Your task to perform on an android device: turn off sleep mode Image 0: 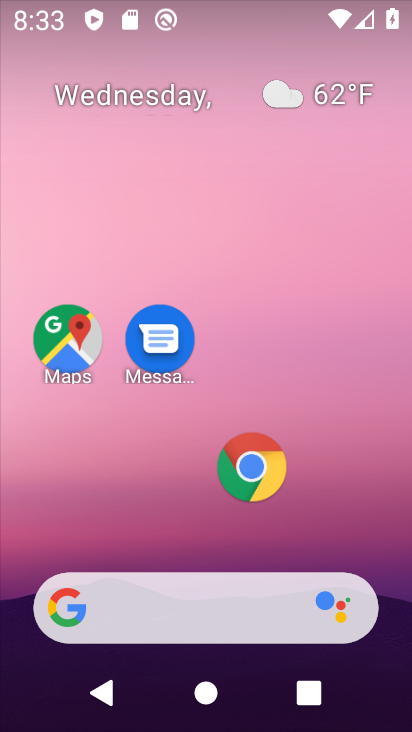
Step 0: drag from (184, 464) to (202, 83)
Your task to perform on an android device: turn off sleep mode Image 1: 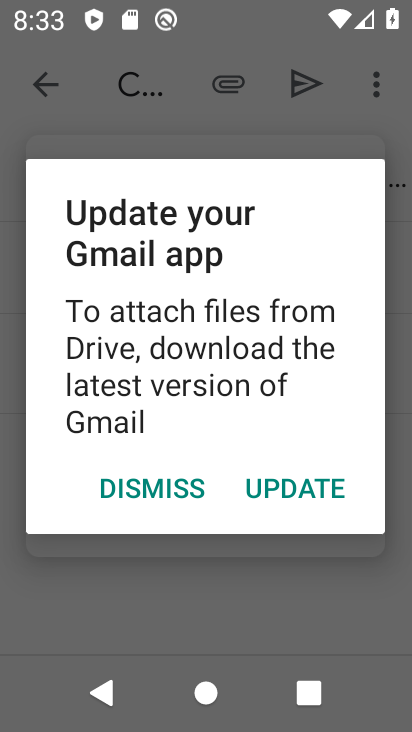
Step 1: press home button
Your task to perform on an android device: turn off sleep mode Image 2: 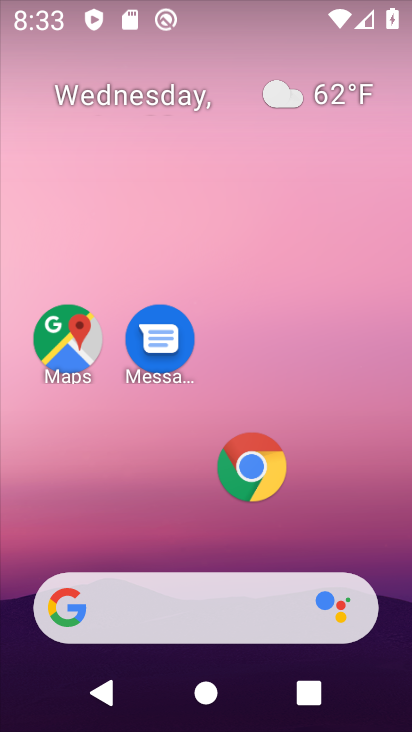
Step 2: drag from (123, 498) to (127, 60)
Your task to perform on an android device: turn off sleep mode Image 3: 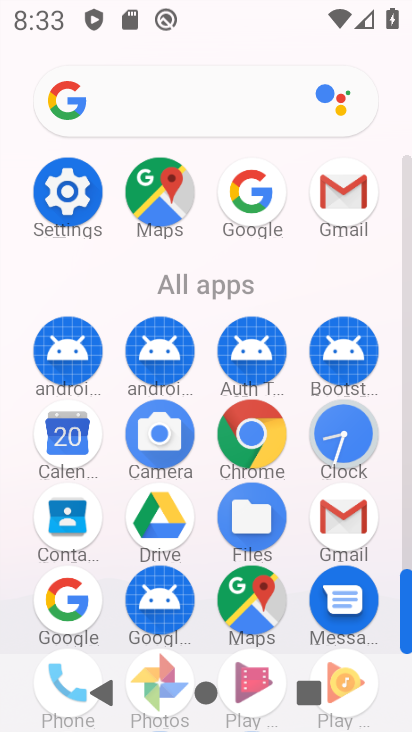
Step 3: click (66, 191)
Your task to perform on an android device: turn off sleep mode Image 4: 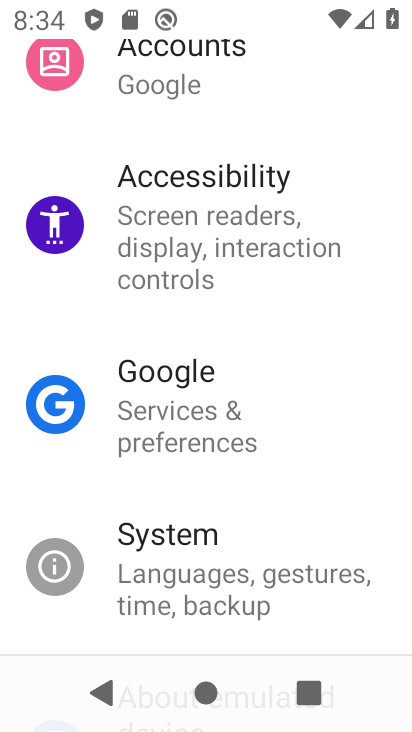
Step 4: drag from (212, 317) to (286, 598)
Your task to perform on an android device: turn off sleep mode Image 5: 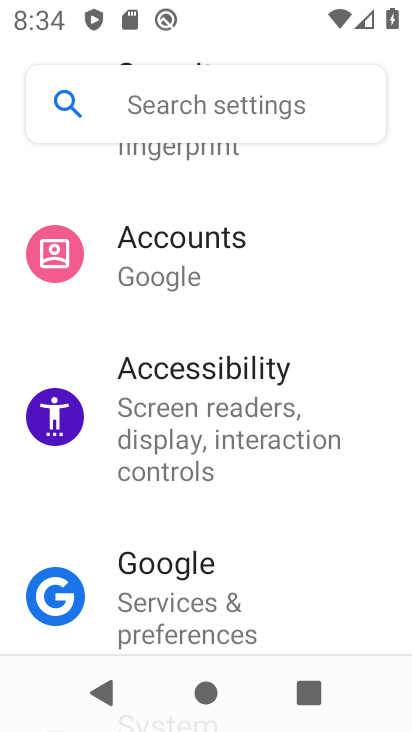
Step 5: drag from (175, 217) to (230, 614)
Your task to perform on an android device: turn off sleep mode Image 6: 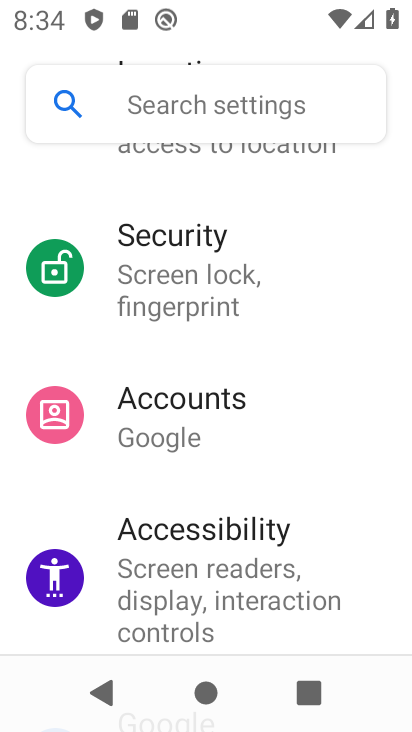
Step 6: drag from (150, 198) to (210, 553)
Your task to perform on an android device: turn off sleep mode Image 7: 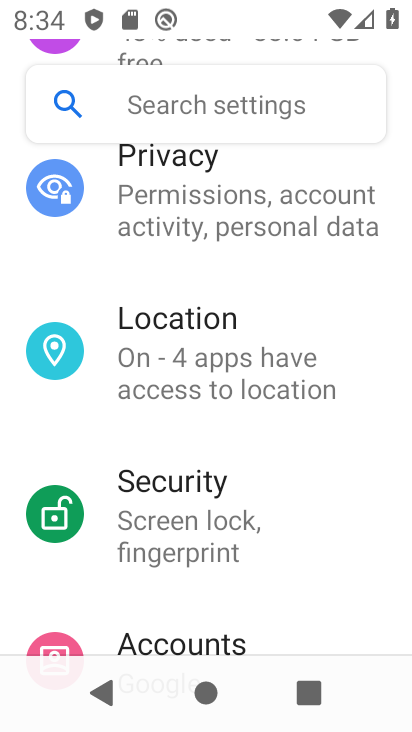
Step 7: drag from (189, 275) to (218, 637)
Your task to perform on an android device: turn off sleep mode Image 8: 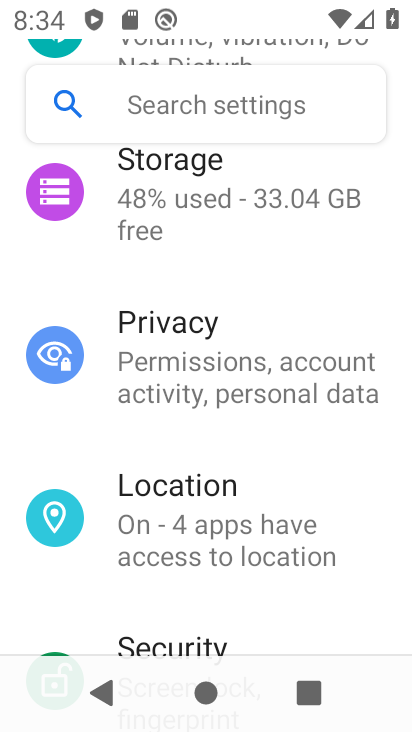
Step 8: drag from (186, 335) to (298, 618)
Your task to perform on an android device: turn off sleep mode Image 9: 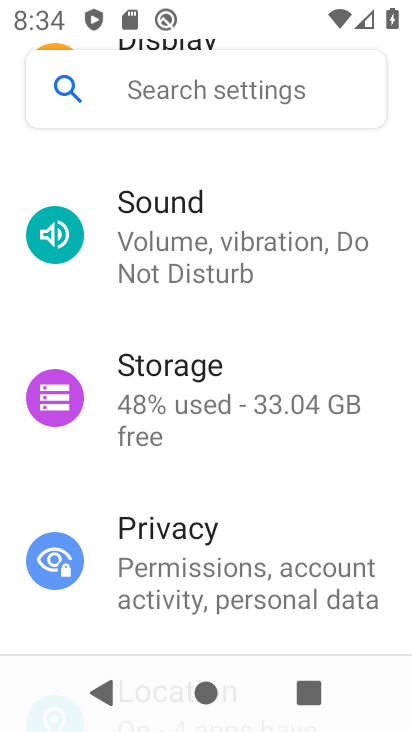
Step 9: drag from (159, 196) to (220, 506)
Your task to perform on an android device: turn off sleep mode Image 10: 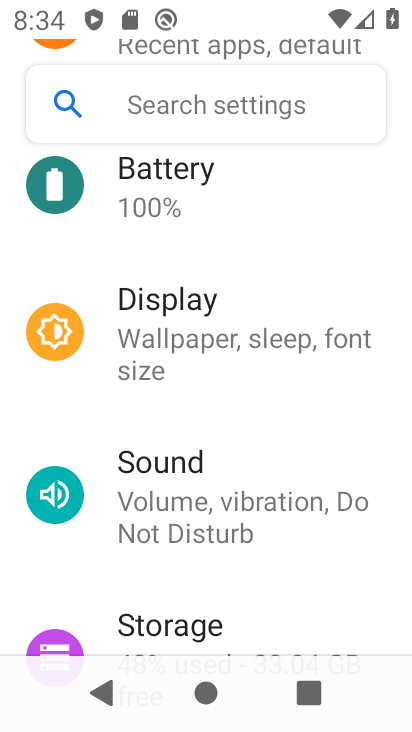
Step 10: drag from (170, 250) to (309, 579)
Your task to perform on an android device: turn off sleep mode Image 11: 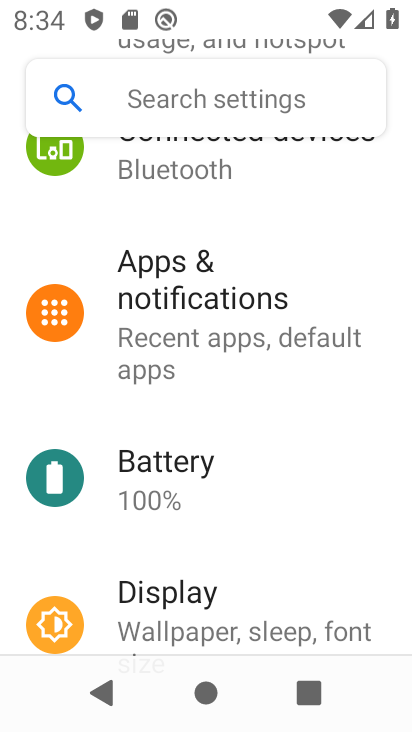
Step 11: click (170, 598)
Your task to perform on an android device: turn off sleep mode Image 12: 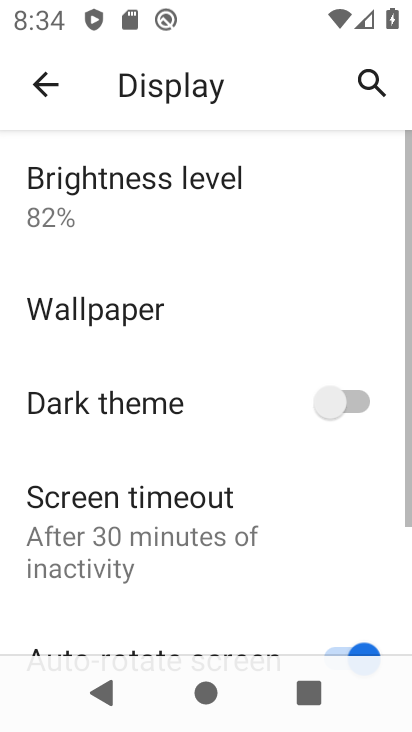
Step 12: click (228, 489)
Your task to perform on an android device: turn off sleep mode Image 13: 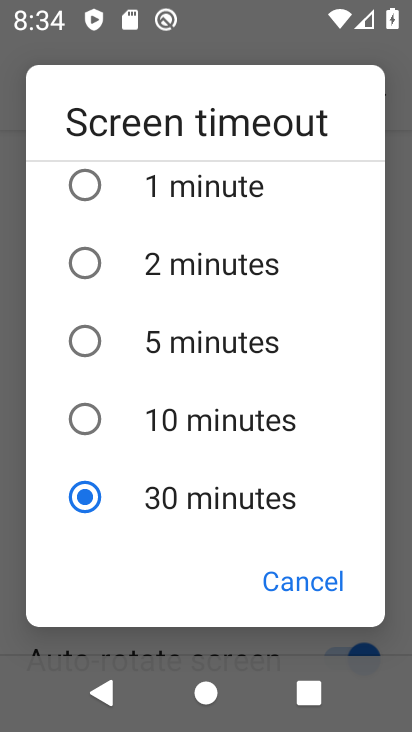
Step 13: task complete